Your task to perform on an android device: Open Google Chrome and open the bookmarks view Image 0: 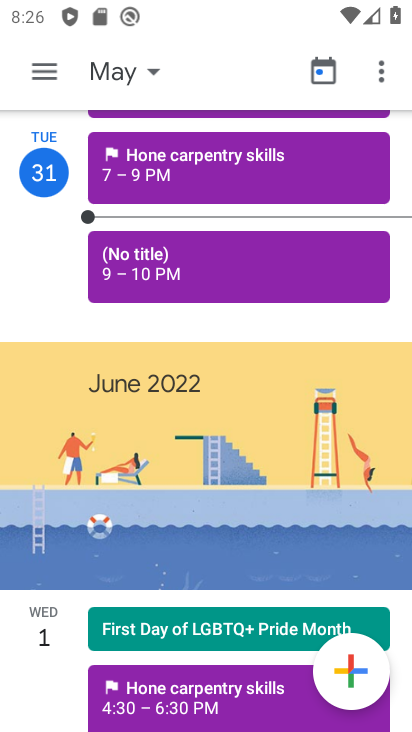
Step 0: press home button
Your task to perform on an android device: Open Google Chrome and open the bookmarks view Image 1: 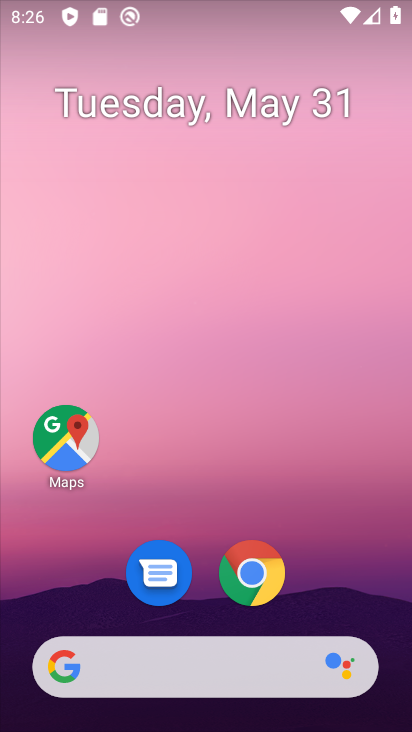
Step 1: click (248, 555)
Your task to perform on an android device: Open Google Chrome and open the bookmarks view Image 2: 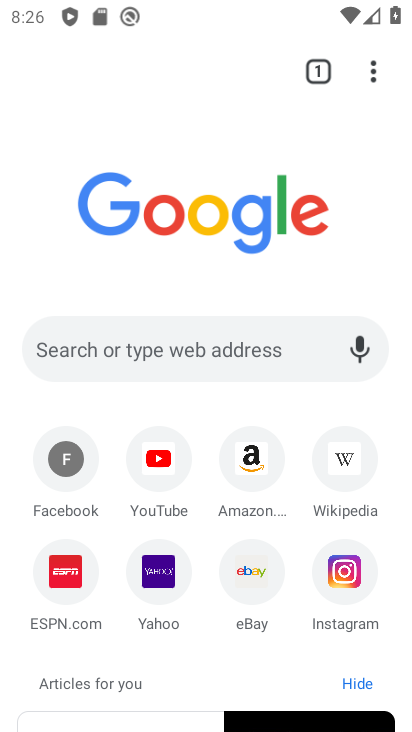
Step 2: click (384, 74)
Your task to perform on an android device: Open Google Chrome and open the bookmarks view Image 3: 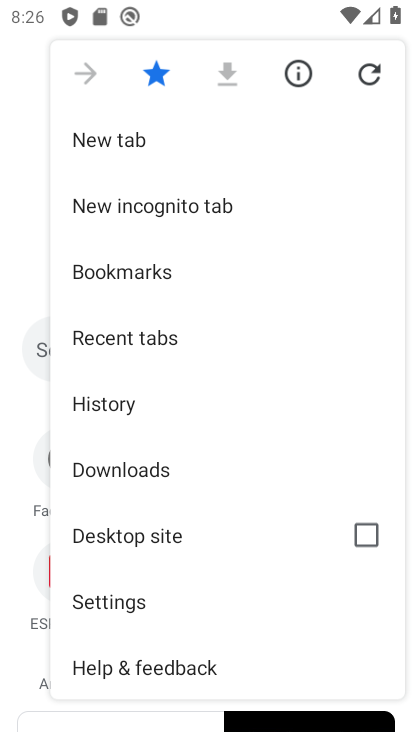
Step 3: click (127, 268)
Your task to perform on an android device: Open Google Chrome and open the bookmarks view Image 4: 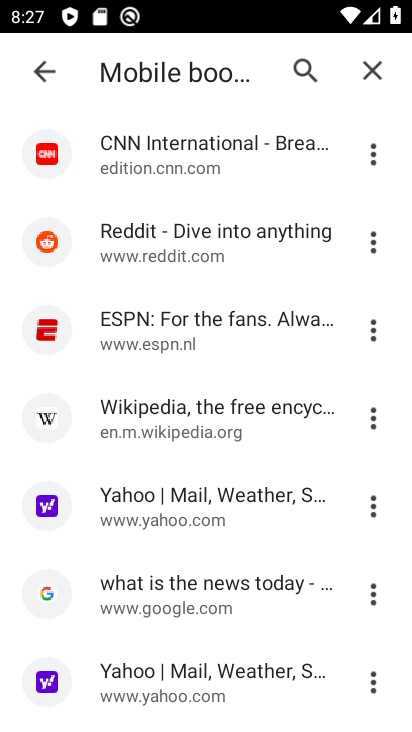
Step 4: task complete